Your task to perform on an android device: toggle location history Image 0: 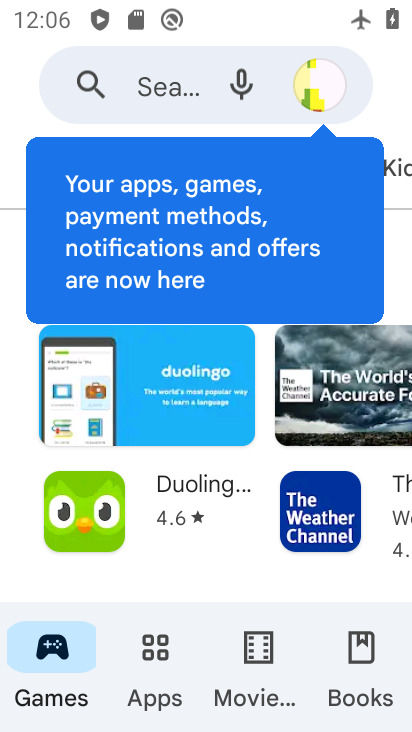
Step 0: press home button
Your task to perform on an android device: toggle location history Image 1: 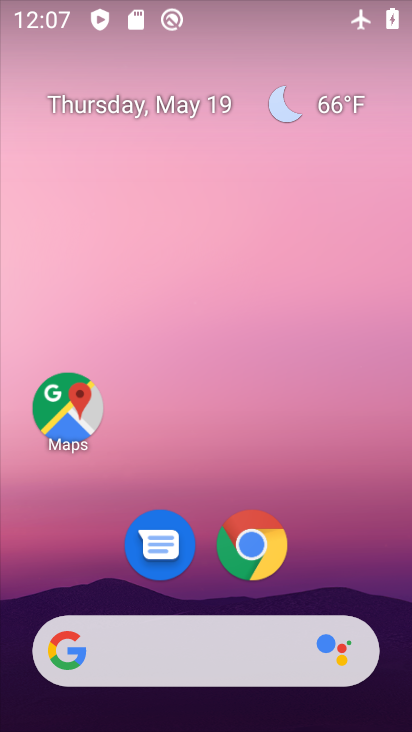
Step 1: drag from (135, 707) to (70, 10)
Your task to perform on an android device: toggle location history Image 2: 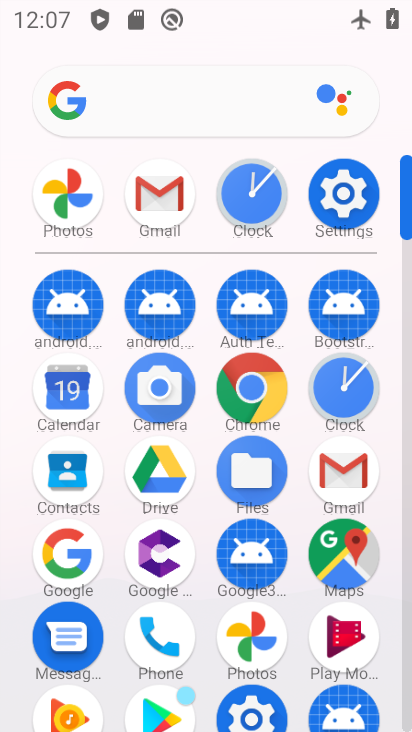
Step 2: click (342, 186)
Your task to perform on an android device: toggle location history Image 3: 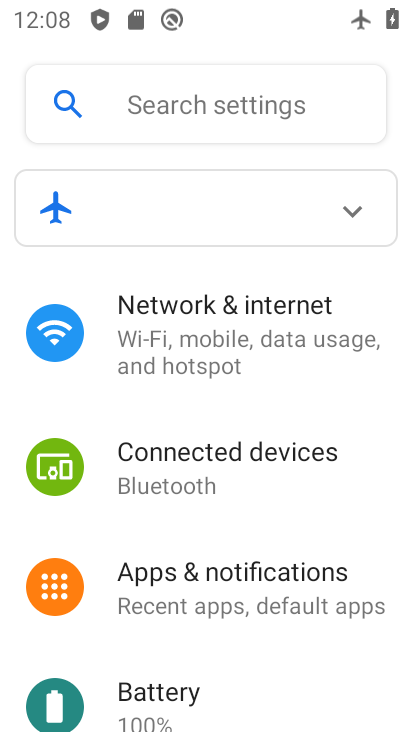
Step 3: drag from (228, 684) to (267, 246)
Your task to perform on an android device: toggle location history Image 4: 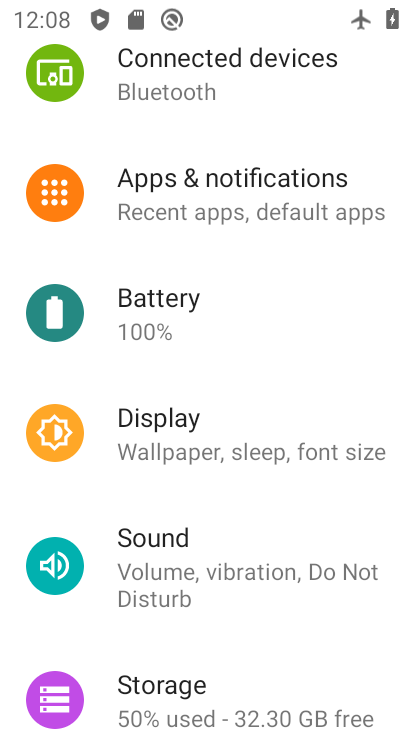
Step 4: drag from (258, 678) to (348, 5)
Your task to perform on an android device: toggle location history Image 5: 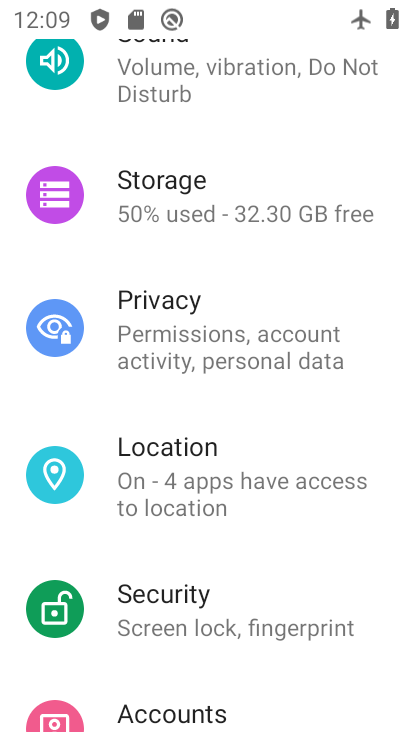
Step 5: drag from (253, 656) to (217, 211)
Your task to perform on an android device: toggle location history Image 6: 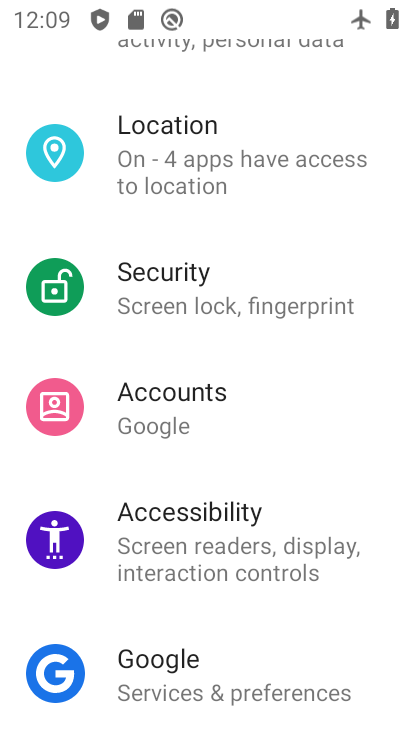
Step 6: drag from (249, 152) to (242, 715)
Your task to perform on an android device: toggle location history Image 7: 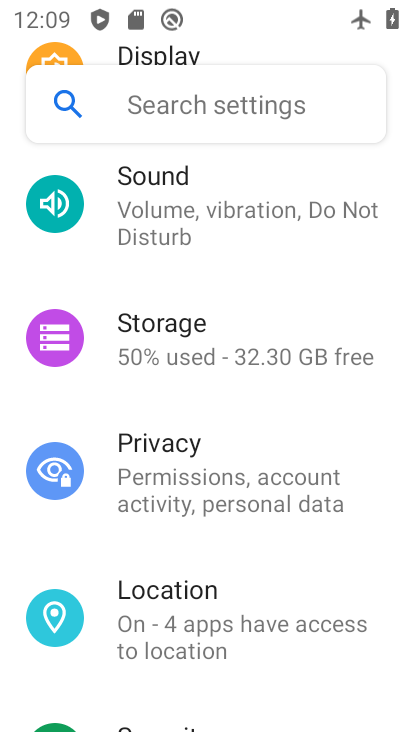
Step 7: drag from (298, 267) to (306, 731)
Your task to perform on an android device: toggle location history Image 8: 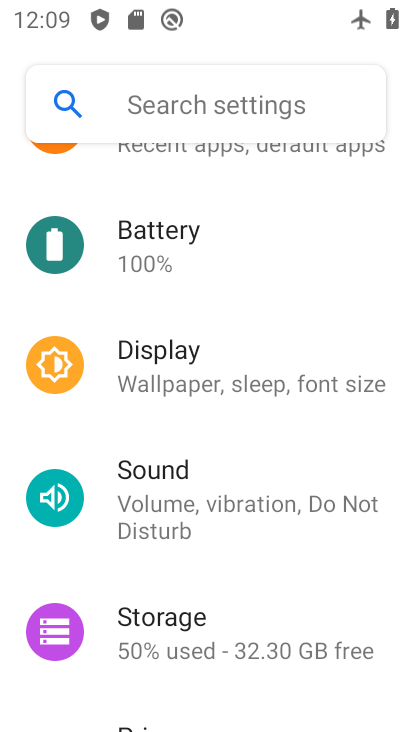
Step 8: drag from (226, 345) to (220, 700)
Your task to perform on an android device: toggle location history Image 9: 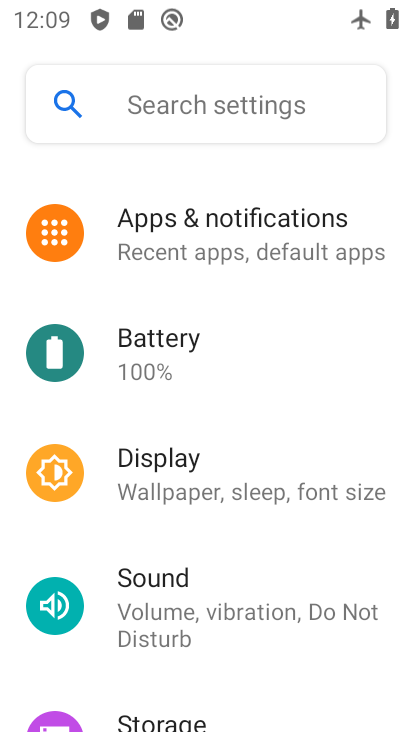
Step 9: drag from (312, 429) to (347, 702)
Your task to perform on an android device: toggle location history Image 10: 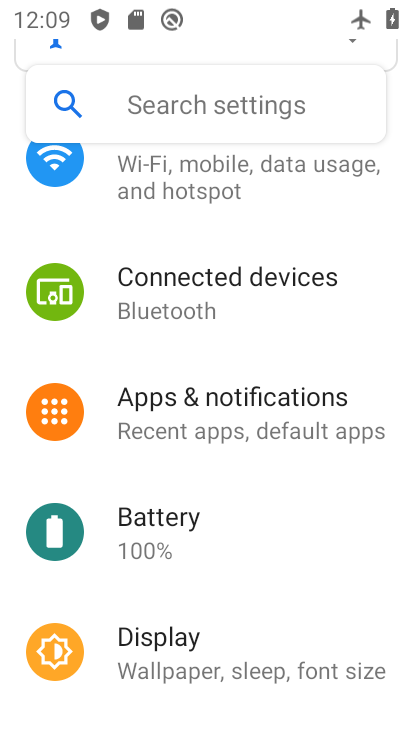
Step 10: drag from (316, 254) to (326, 671)
Your task to perform on an android device: toggle location history Image 11: 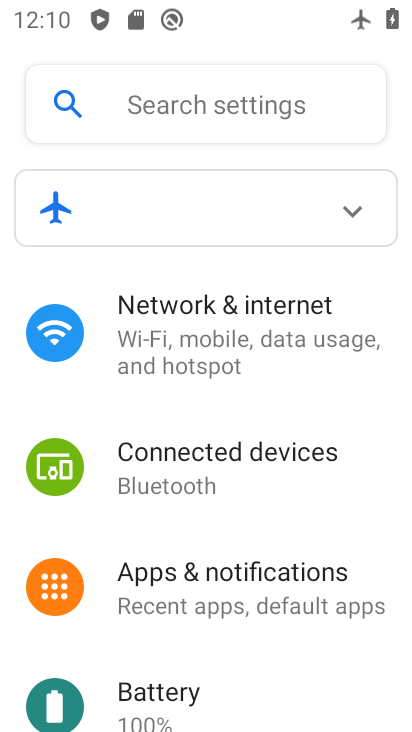
Step 11: drag from (323, 640) to (317, 211)
Your task to perform on an android device: toggle location history Image 12: 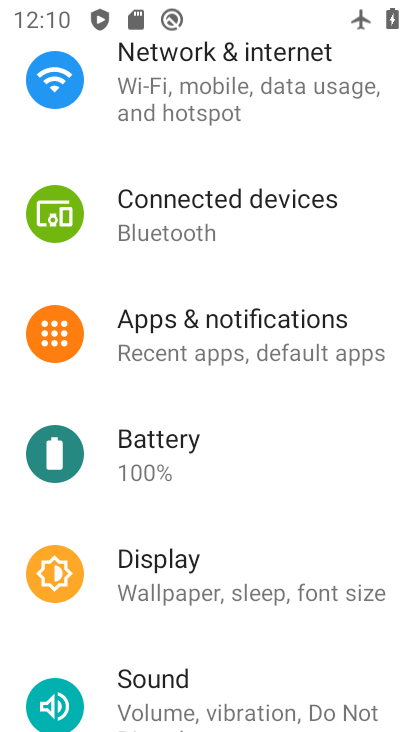
Step 12: drag from (289, 538) to (327, 165)
Your task to perform on an android device: toggle location history Image 13: 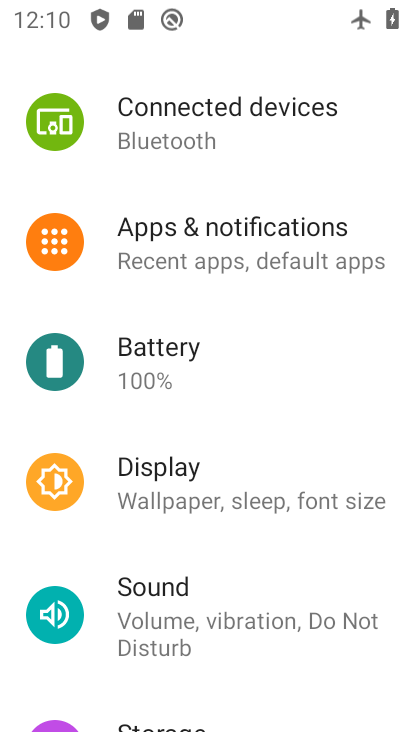
Step 13: drag from (282, 672) to (280, 106)
Your task to perform on an android device: toggle location history Image 14: 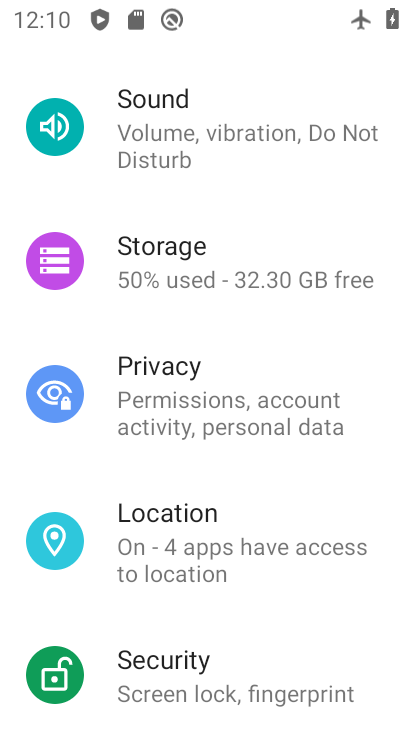
Step 14: click (315, 508)
Your task to perform on an android device: toggle location history Image 15: 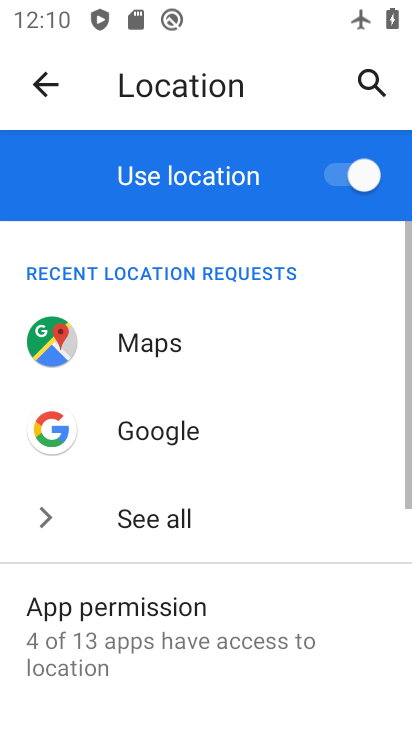
Step 15: click (353, 164)
Your task to perform on an android device: toggle location history Image 16: 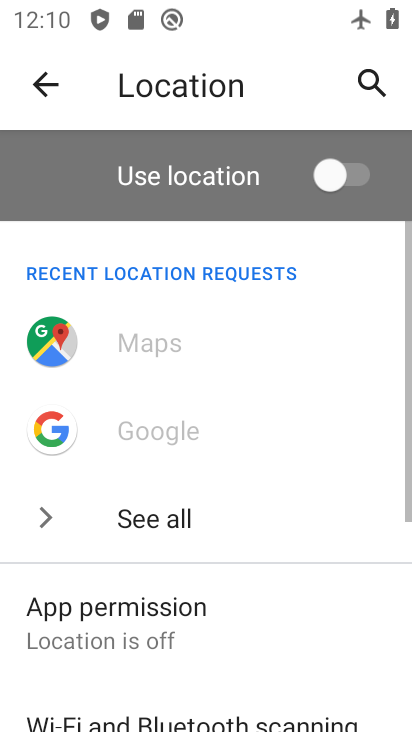
Step 16: task complete